Your task to perform on an android device: Is it going to rain tomorrow? Image 0: 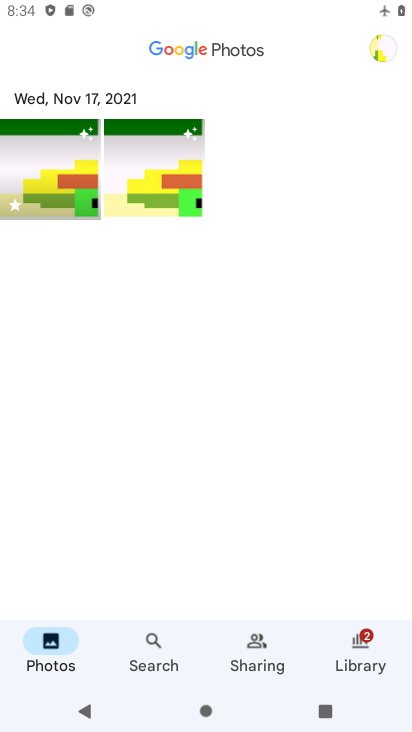
Step 0: press home button
Your task to perform on an android device: Is it going to rain tomorrow? Image 1: 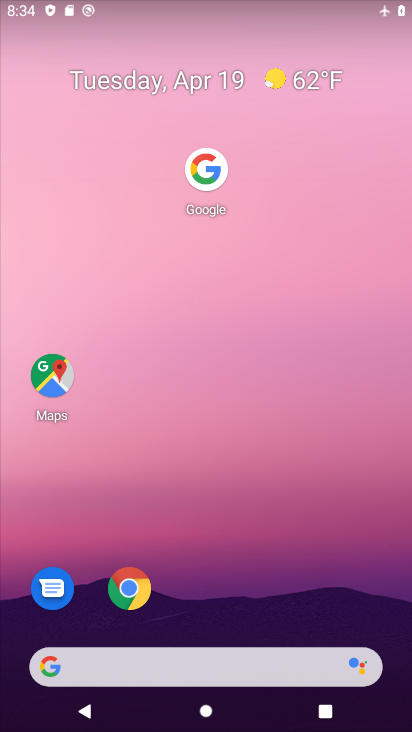
Step 1: click (274, 79)
Your task to perform on an android device: Is it going to rain tomorrow? Image 2: 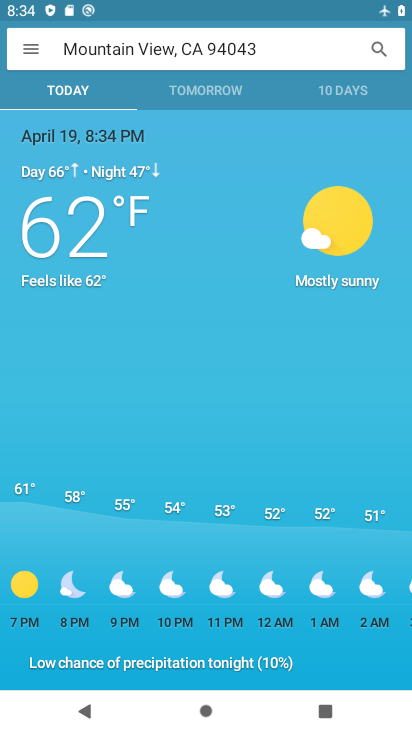
Step 2: click (203, 87)
Your task to perform on an android device: Is it going to rain tomorrow? Image 3: 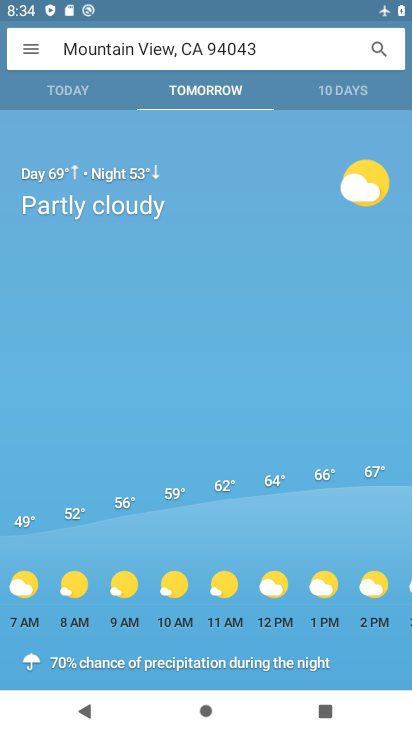
Step 3: task complete